Your task to perform on an android device: change text size in settings app Image 0: 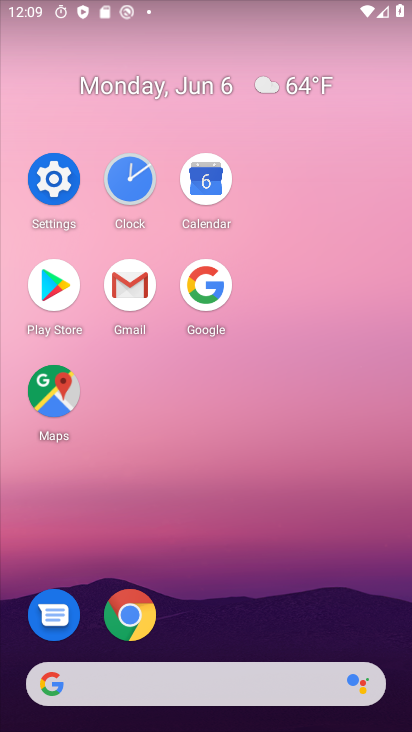
Step 0: click (44, 192)
Your task to perform on an android device: change text size in settings app Image 1: 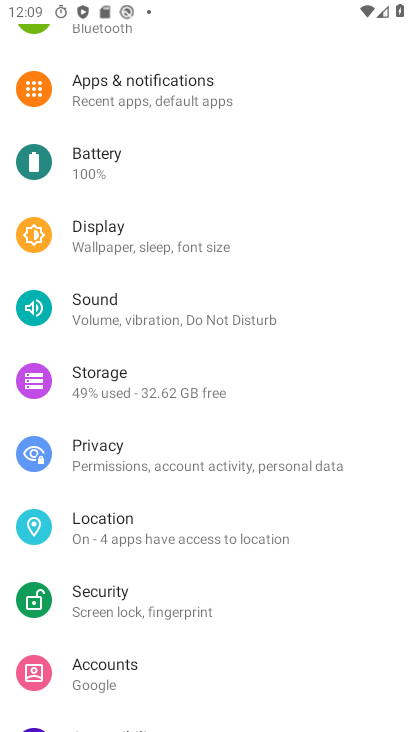
Step 1: click (218, 227)
Your task to perform on an android device: change text size in settings app Image 2: 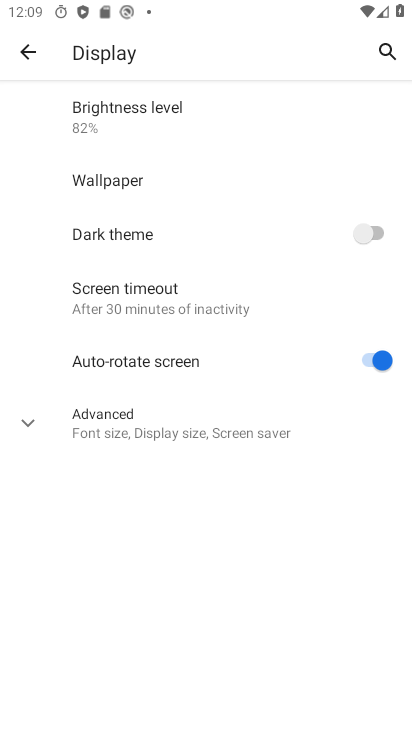
Step 2: click (123, 429)
Your task to perform on an android device: change text size in settings app Image 3: 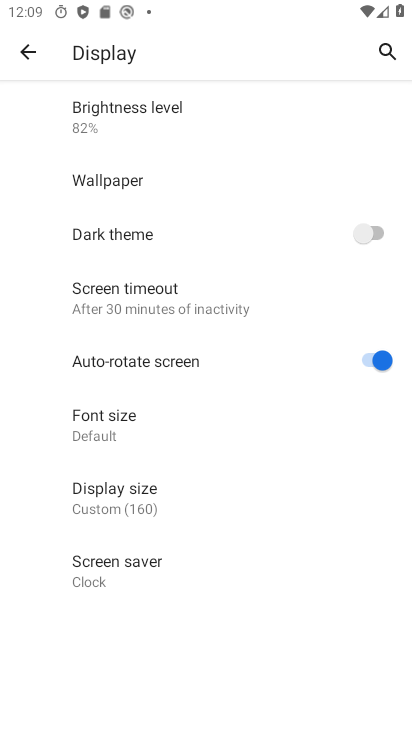
Step 3: click (133, 418)
Your task to perform on an android device: change text size in settings app Image 4: 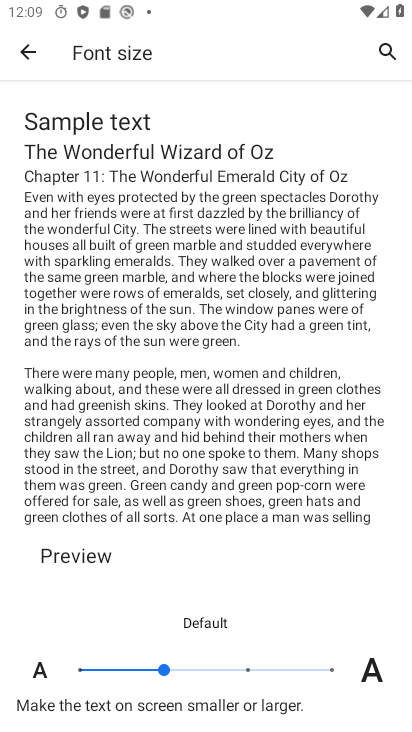
Step 4: click (251, 672)
Your task to perform on an android device: change text size in settings app Image 5: 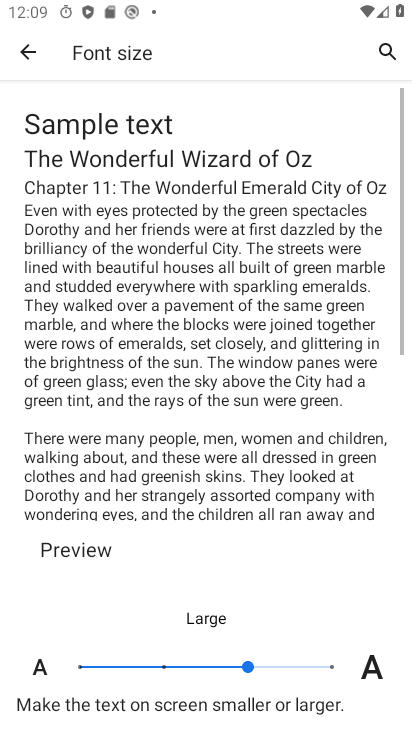
Step 5: task complete